Your task to perform on an android device: show emergency info Image 0: 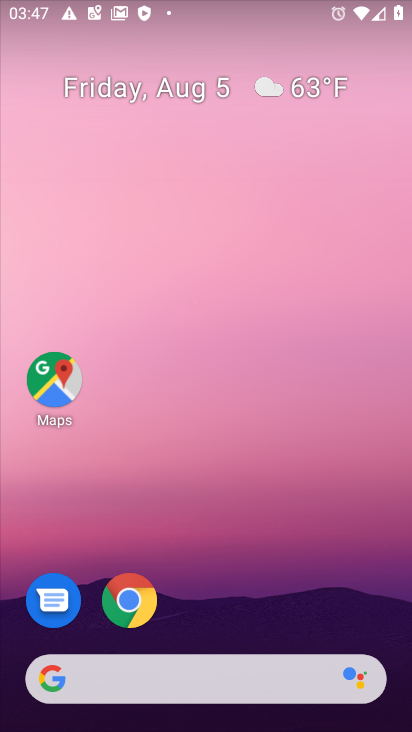
Step 0: drag from (203, 668) to (235, 237)
Your task to perform on an android device: show emergency info Image 1: 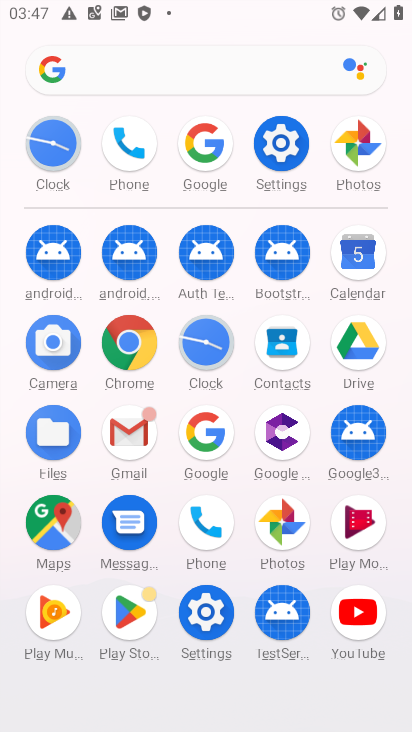
Step 1: click (280, 144)
Your task to perform on an android device: show emergency info Image 2: 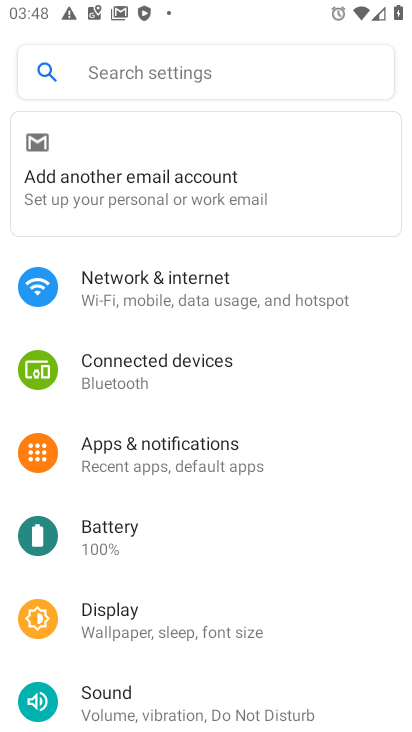
Step 2: drag from (136, 503) to (208, 249)
Your task to perform on an android device: show emergency info Image 3: 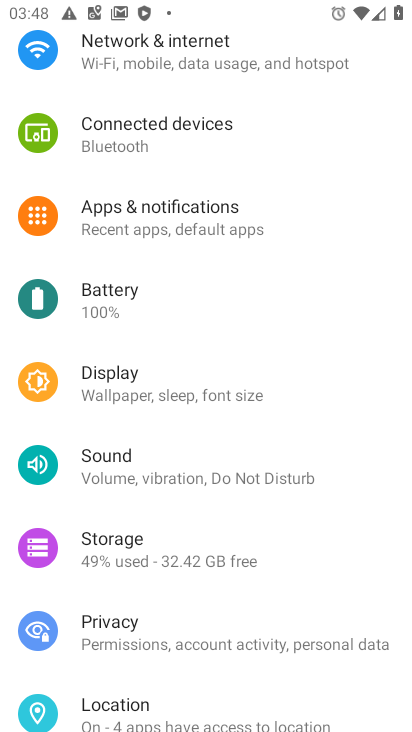
Step 3: drag from (152, 509) to (239, 370)
Your task to perform on an android device: show emergency info Image 4: 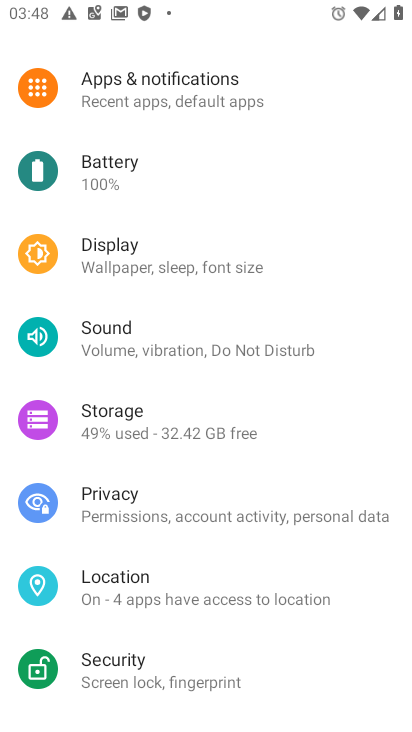
Step 4: drag from (130, 623) to (250, 487)
Your task to perform on an android device: show emergency info Image 5: 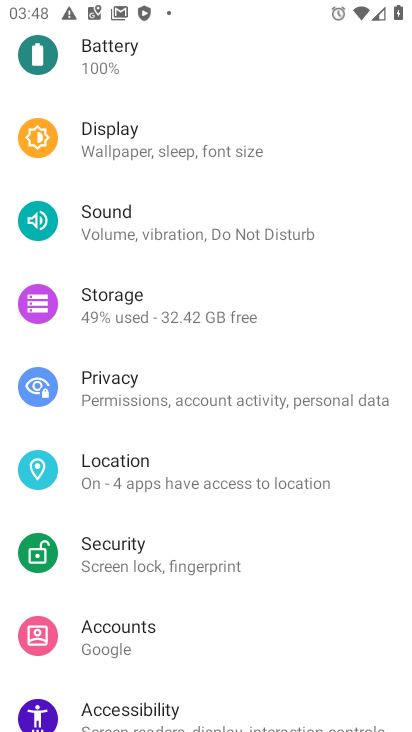
Step 5: drag from (143, 646) to (263, 507)
Your task to perform on an android device: show emergency info Image 6: 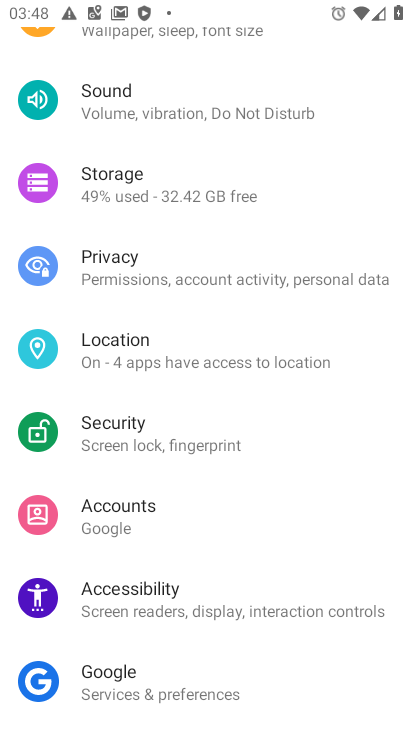
Step 6: drag from (122, 655) to (240, 498)
Your task to perform on an android device: show emergency info Image 7: 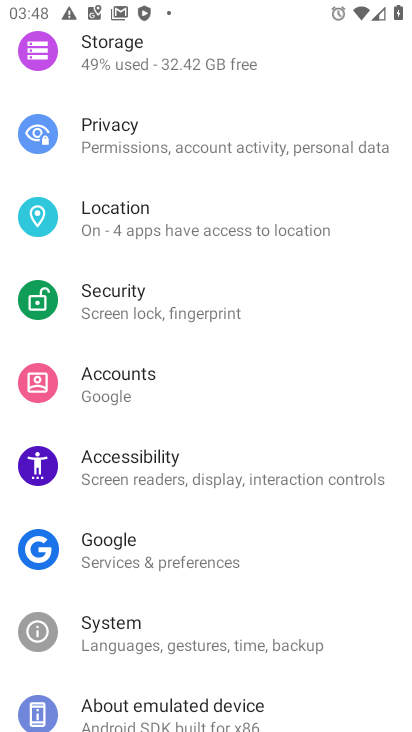
Step 7: drag from (141, 599) to (247, 447)
Your task to perform on an android device: show emergency info Image 8: 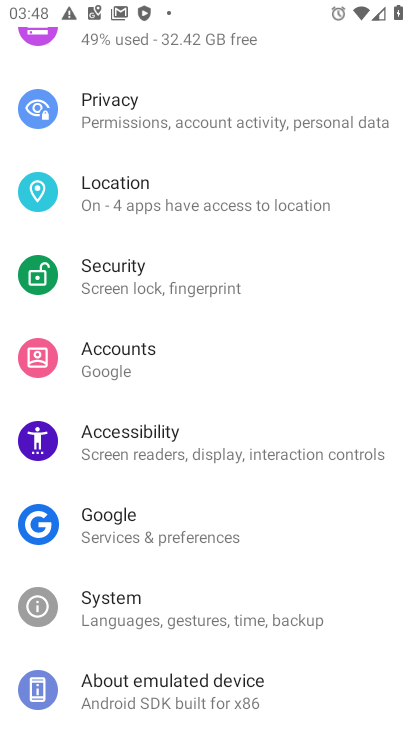
Step 8: click (162, 693)
Your task to perform on an android device: show emergency info Image 9: 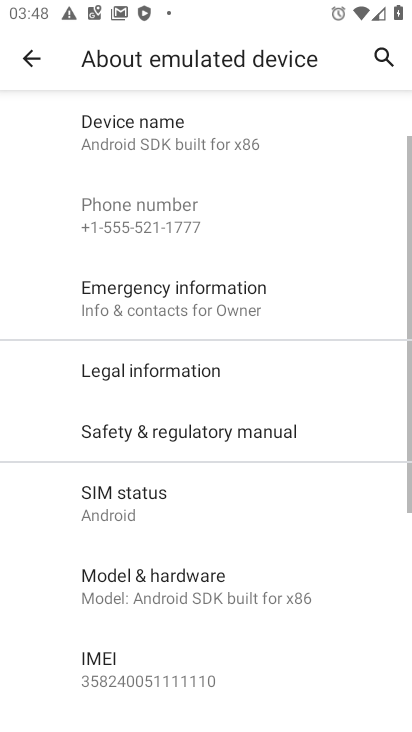
Step 9: click (199, 299)
Your task to perform on an android device: show emergency info Image 10: 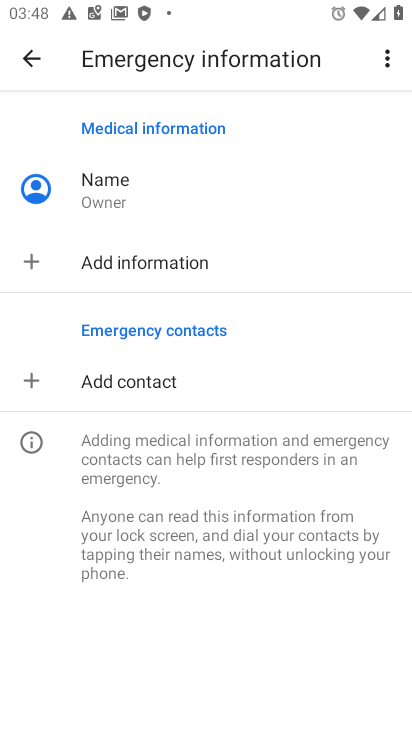
Step 10: task complete